Your task to perform on an android device: Go to ESPN.com Image 0: 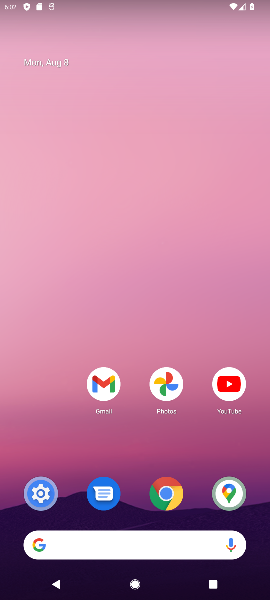
Step 0: click (165, 495)
Your task to perform on an android device: Go to ESPN.com Image 1: 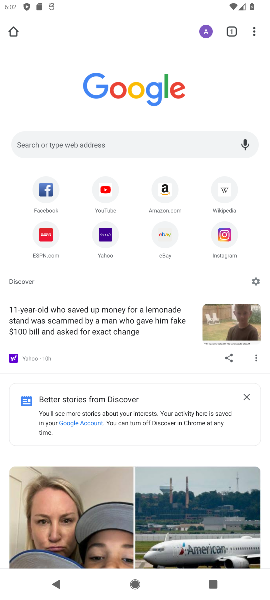
Step 1: click (45, 235)
Your task to perform on an android device: Go to ESPN.com Image 2: 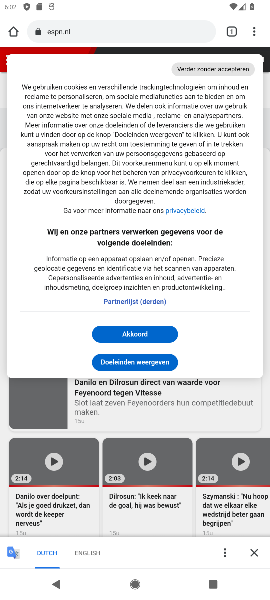
Step 2: drag from (123, 522) to (123, 290)
Your task to perform on an android device: Go to ESPN.com Image 3: 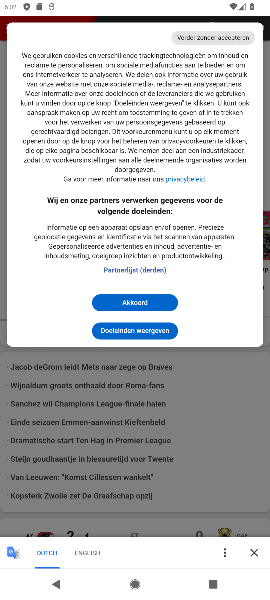
Step 3: click (205, 355)
Your task to perform on an android device: Go to ESPN.com Image 4: 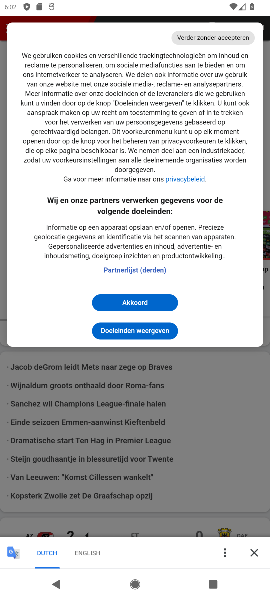
Step 4: task complete